Your task to perform on an android device: turn off data saver in the chrome app Image 0: 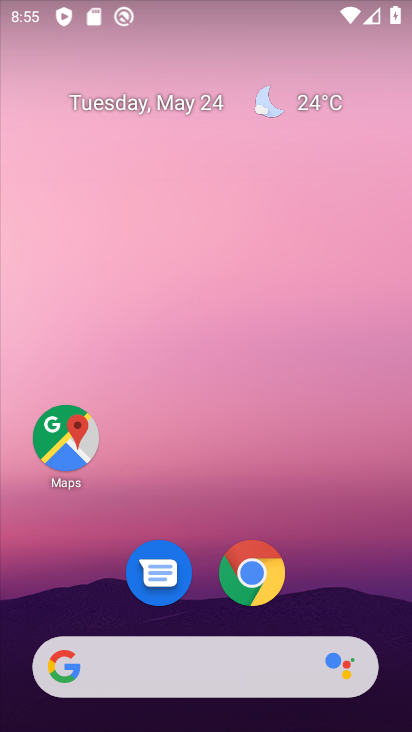
Step 0: click (259, 574)
Your task to perform on an android device: turn off data saver in the chrome app Image 1: 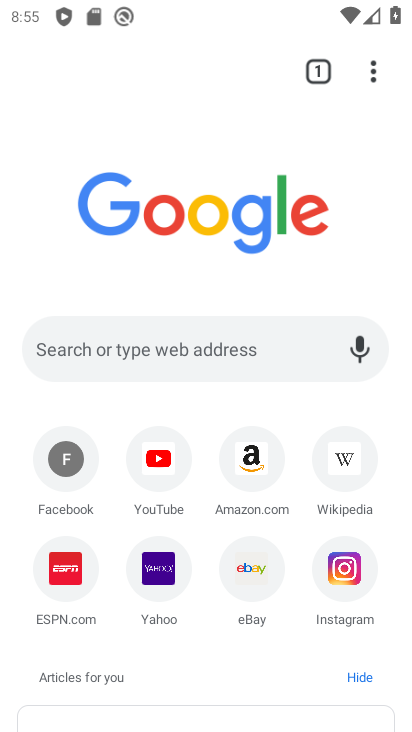
Step 1: click (372, 78)
Your task to perform on an android device: turn off data saver in the chrome app Image 2: 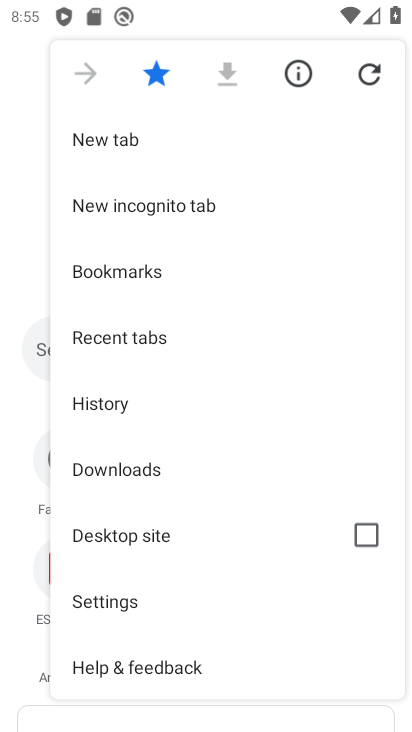
Step 2: click (104, 595)
Your task to perform on an android device: turn off data saver in the chrome app Image 3: 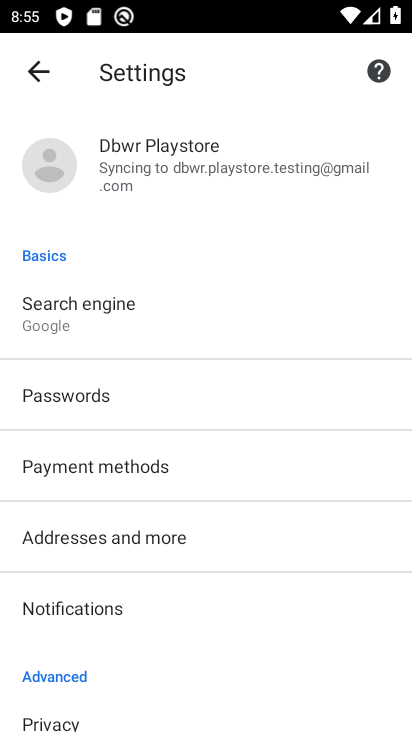
Step 3: drag from (211, 664) to (292, 156)
Your task to perform on an android device: turn off data saver in the chrome app Image 4: 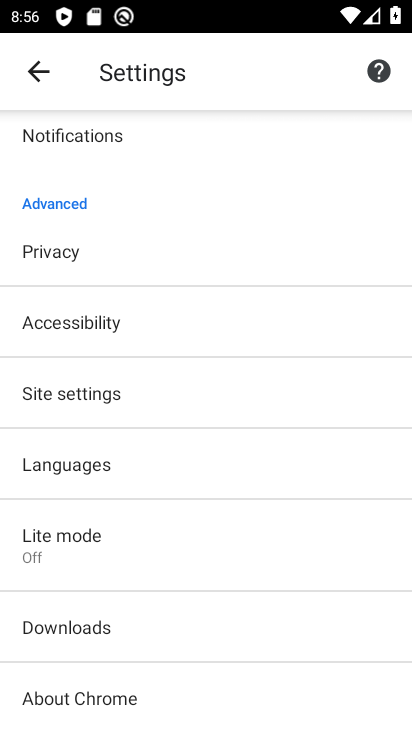
Step 4: click (62, 522)
Your task to perform on an android device: turn off data saver in the chrome app Image 5: 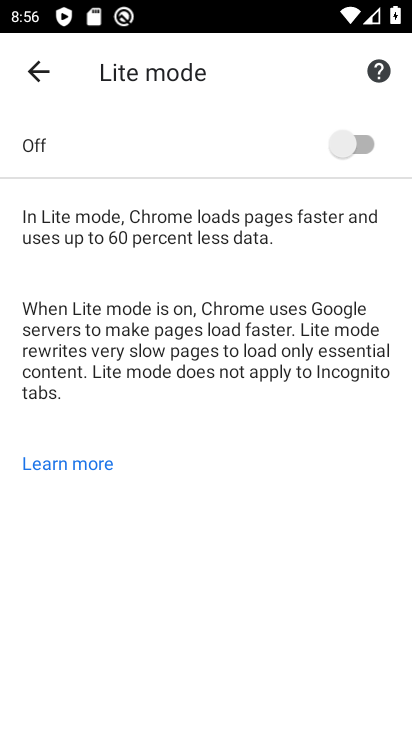
Step 5: task complete